Your task to perform on an android device: What's the weather going to be tomorrow? Image 0: 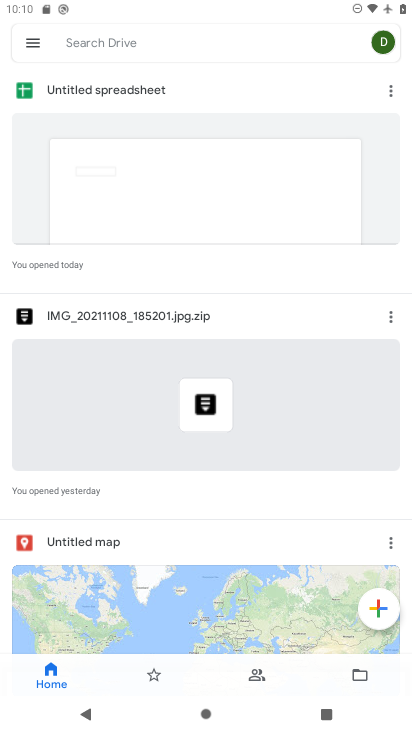
Step 0: press home button
Your task to perform on an android device: What's the weather going to be tomorrow? Image 1: 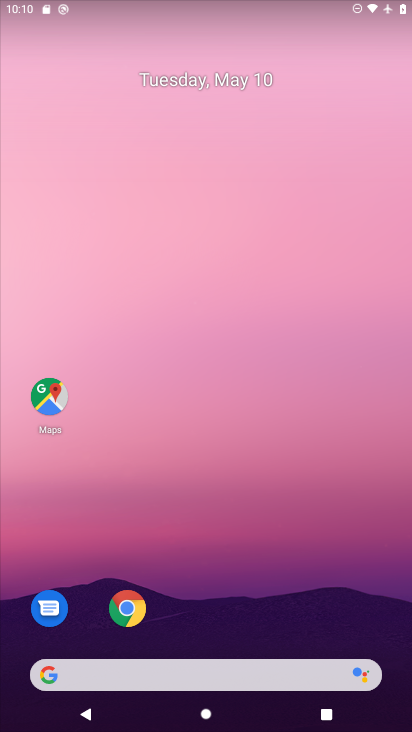
Step 1: drag from (221, 594) to (215, 203)
Your task to perform on an android device: What's the weather going to be tomorrow? Image 2: 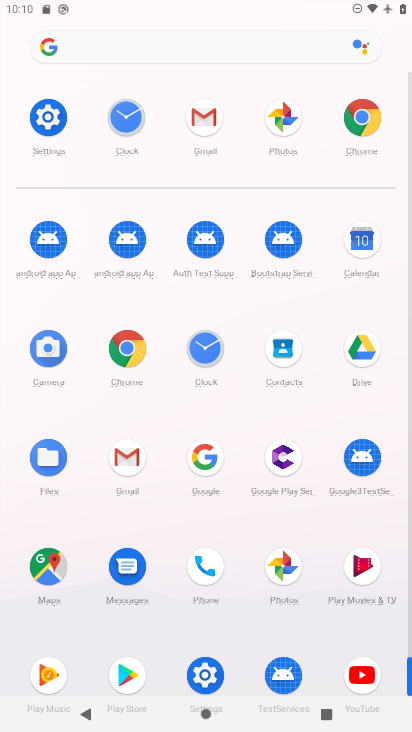
Step 2: click (130, 344)
Your task to perform on an android device: What's the weather going to be tomorrow? Image 3: 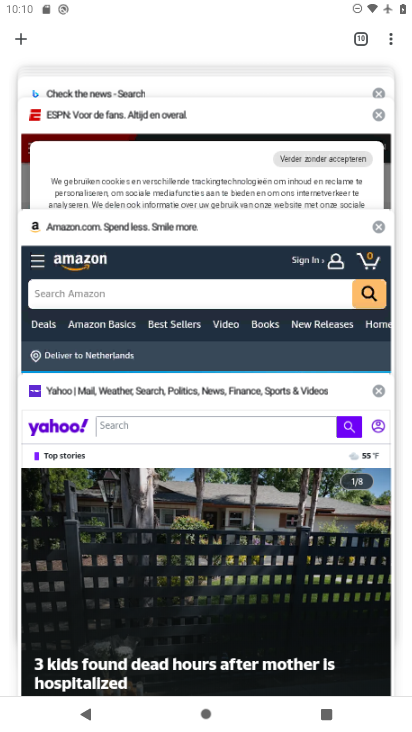
Step 3: click (14, 38)
Your task to perform on an android device: What's the weather going to be tomorrow? Image 4: 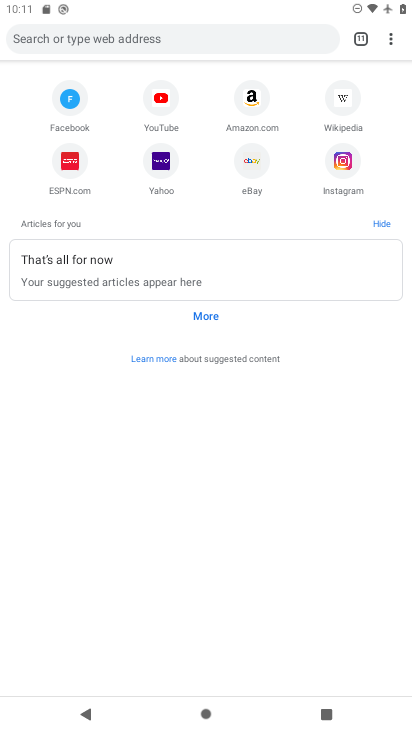
Step 4: click (165, 31)
Your task to perform on an android device: What's the weather going to be tomorrow? Image 5: 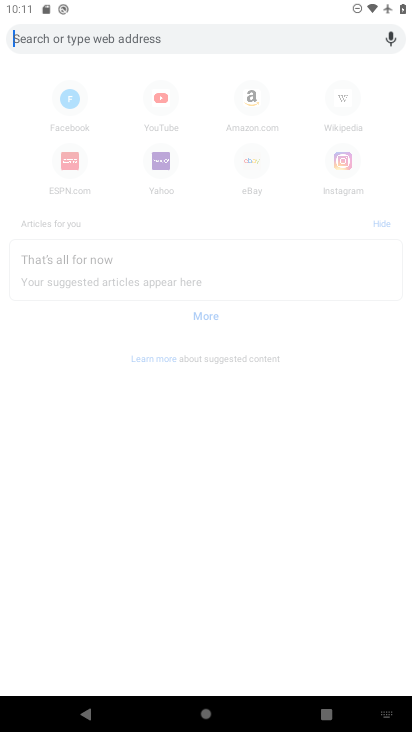
Step 5: click (232, 29)
Your task to perform on an android device: What's the weather going to be tomorrow? Image 6: 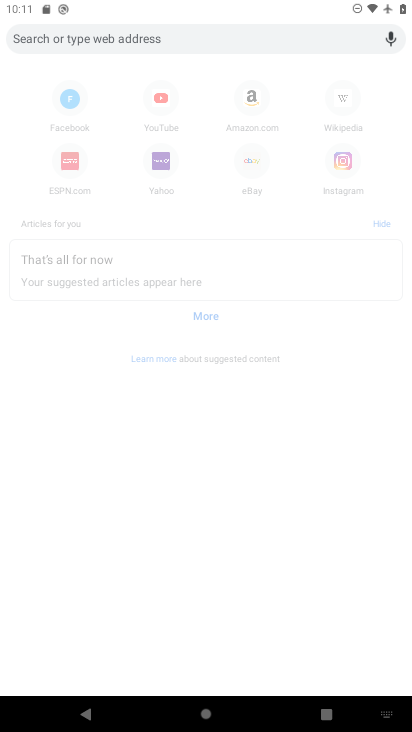
Step 6: click (232, 31)
Your task to perform on an android device: What's the weather going to be tomorrow? Image 7: 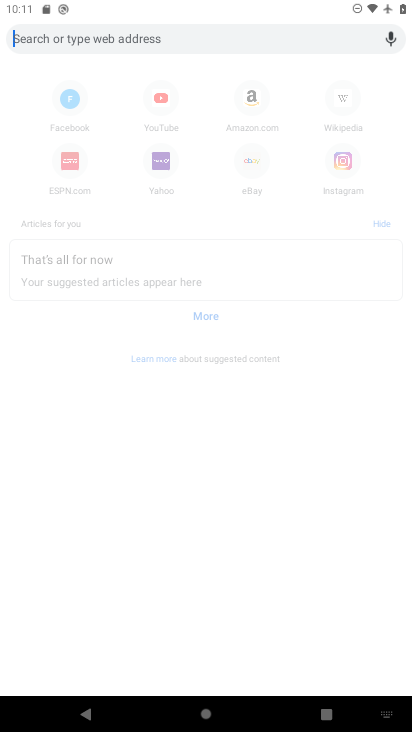
Step 7: type "What's the weather going to be tomorrow?"
Your task to perform on an android device: What's the weather going to be tomorrow? Image 8: 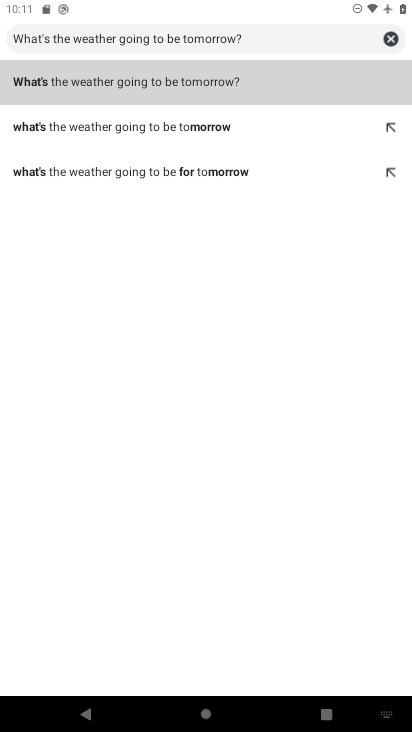
Step 8: click (227, 80)
Your task to perform on an android device: What's the weather going to be tomorrow? Image 9: 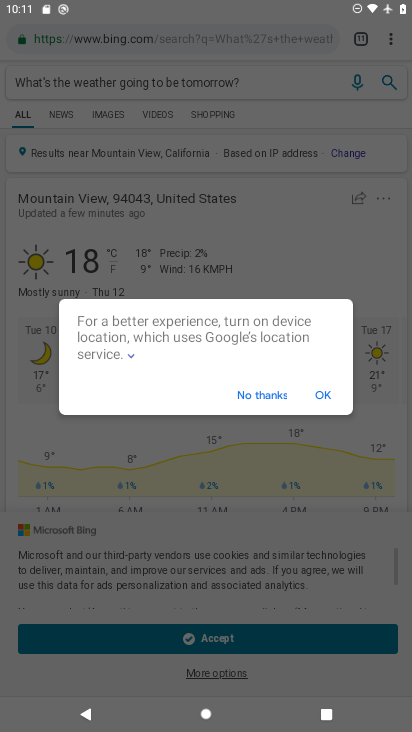
Step 9: task complete